Your task to perform on an android device: Go to Google maps Image 0: 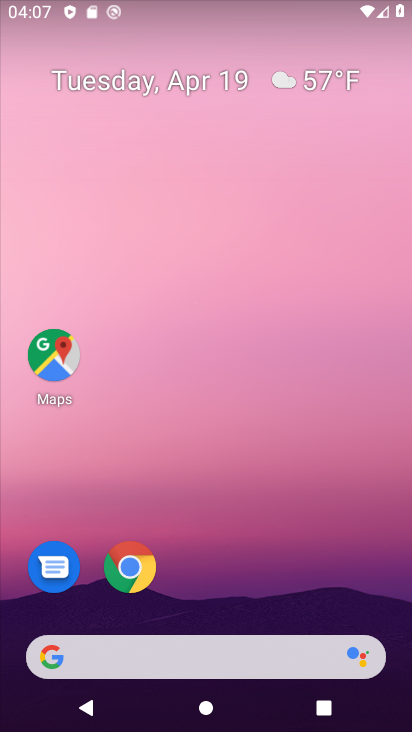
Step 0: drag from (350, 593) to (339, 202)
Your task to perform on an android device: Go to Google maps Image 1: 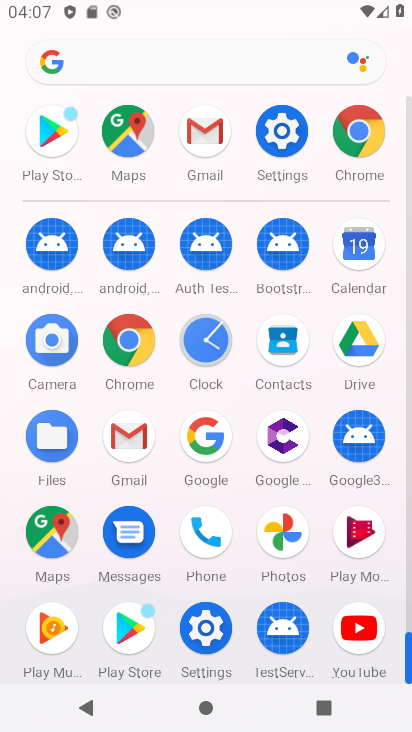
Step 1: click (60, 525)
Your task to perform on an android device: Go to Google maps Image 2: 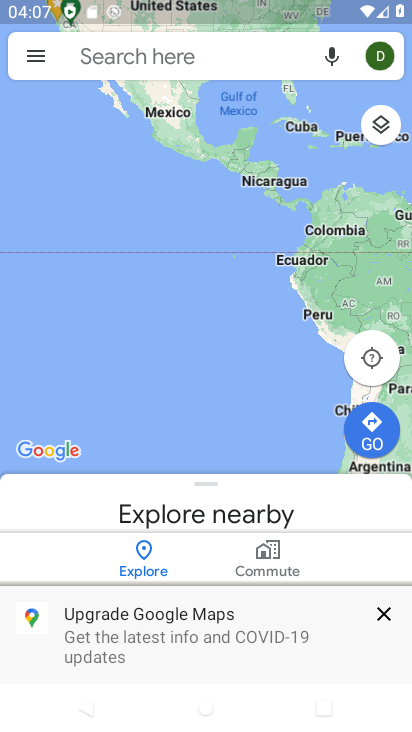
Step 2: task complete